Your task to perform on an android device: toggle pop-ups in chrome Image 0: 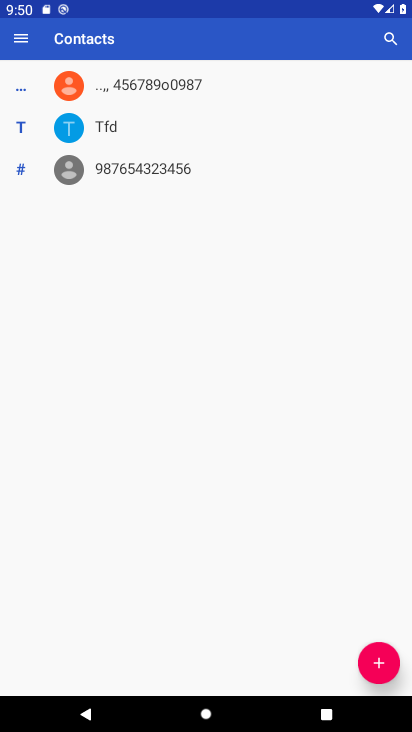
Step 0: press home button
Your task to perform on an android device: toggle pop-ups in chrome Image 1: 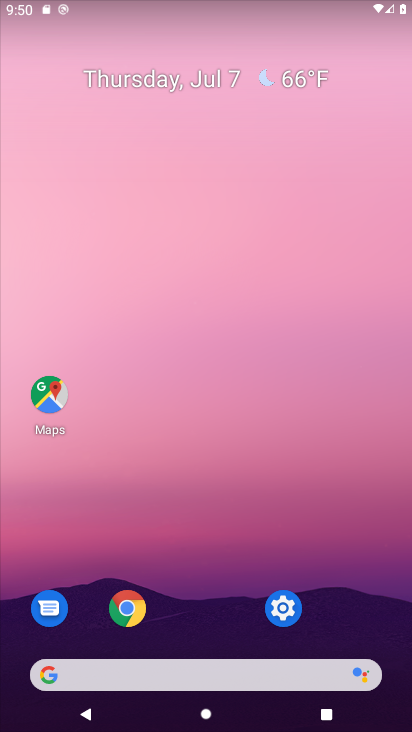
Step 1: click (155, 604)
Your task to perform on an android device: toggle pop-ups in chrome Image 2: 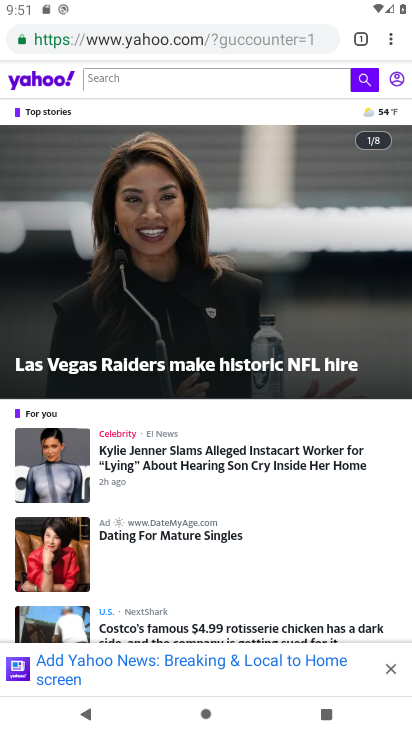
Step 2: click (389, 30)
Your task to perform on an android device: toggle pop-ups in chrome Image 3: 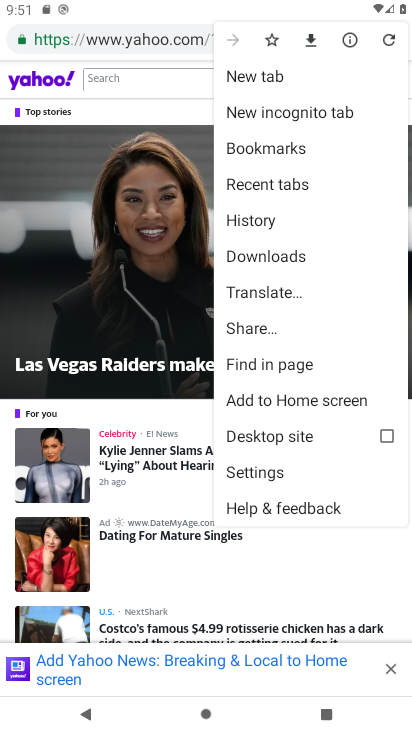
Step 3: click (252, 470)
Your task to perform on an android device: toggle pop-ups in chrome Image 4: 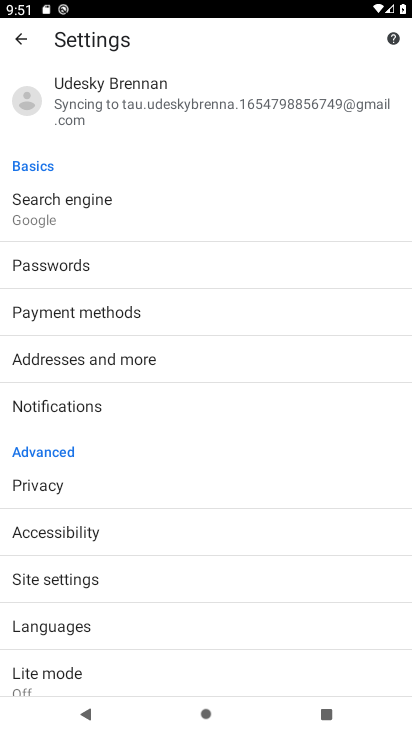
Step 4: click (47, 575)
Your task to perform on an android device: toggle pop-ups in chrome Image 5: 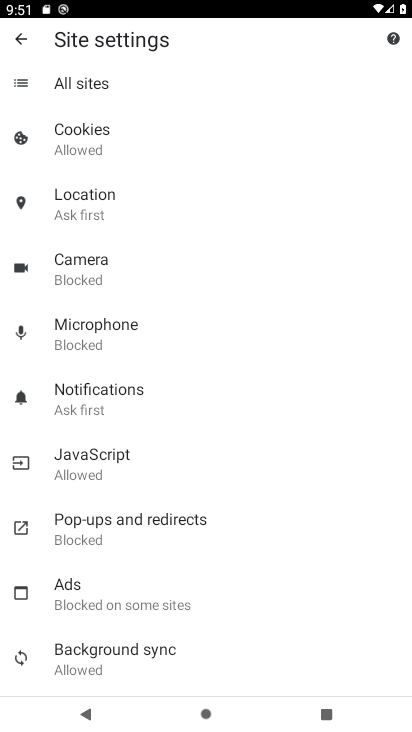
Step 5: click (89, 529)
Your task to perform on an android device: toggle pop-ups in chrome Image 6: 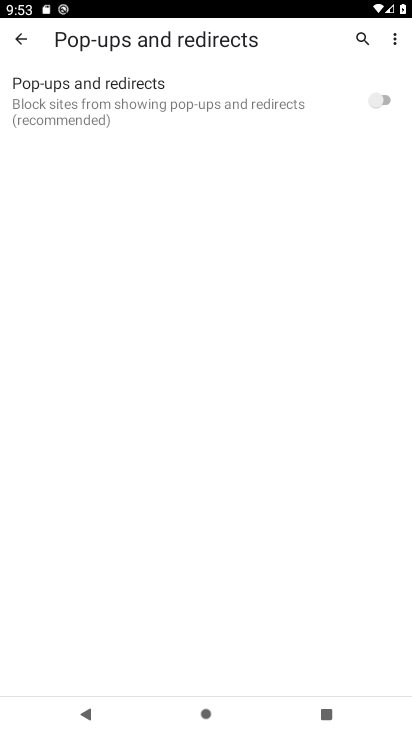
Step 6: task complete